Your task to perform on an android device: Go to wifi settings Image 0: 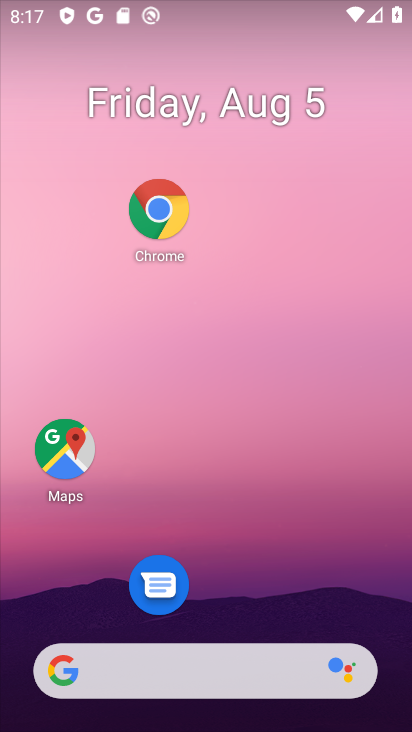
Step 0: drag from (226, 615) to (271, 0)
Your task to perform on an android device: Go to wifi settings Image 1: 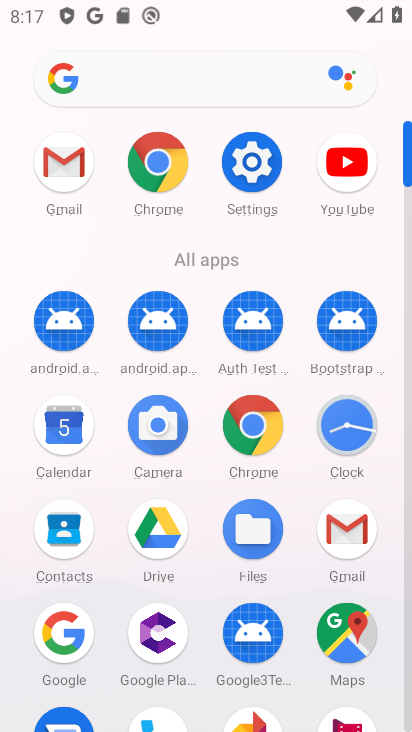
Step 1: click (260, 115)
Your task to perform on an android device: Go to wifi settings Image 2: 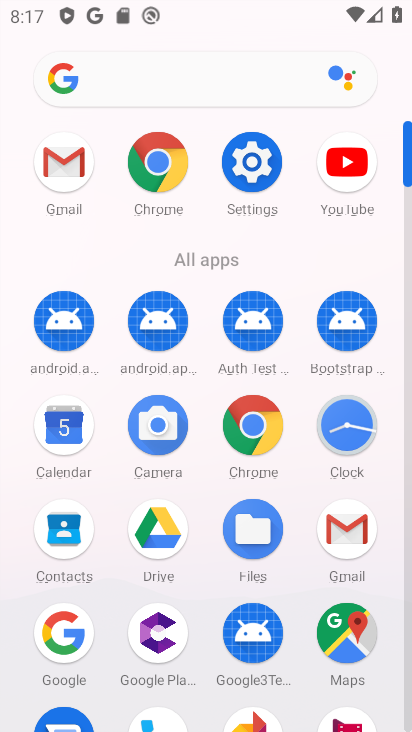
Step 2: click (250, 144)
Your task to perform on an android device: Go to wifi settings Image 3: 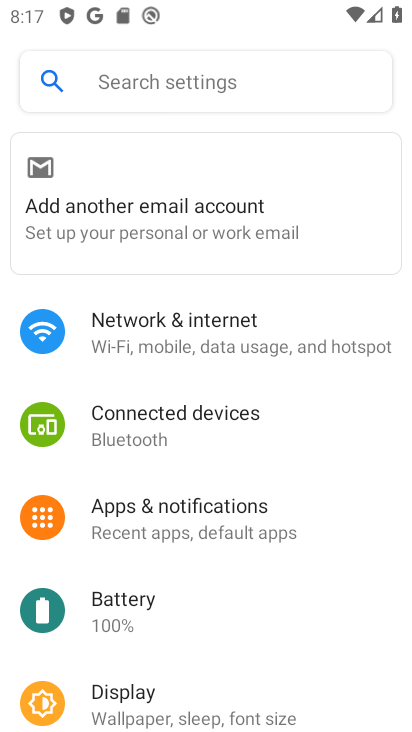
Step 3: click (127, 311)
Your task to perform on an android device: Go to wifi settings Image 4: 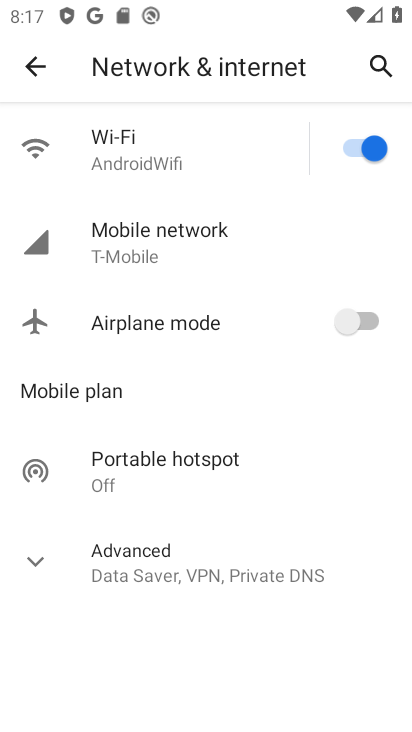
Step 4: click (192, 176)
Your task to perform on an android device: Go to wifi settings Image 5: 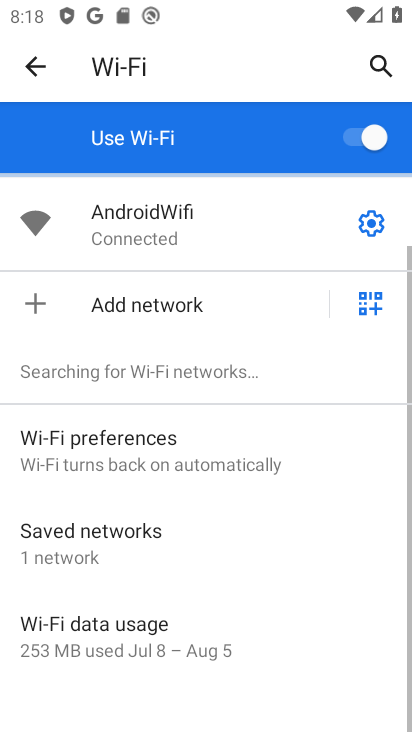
Step 5: task complete